Your task to perform on an android device: Go to calendar. Show me events next week Image 0: 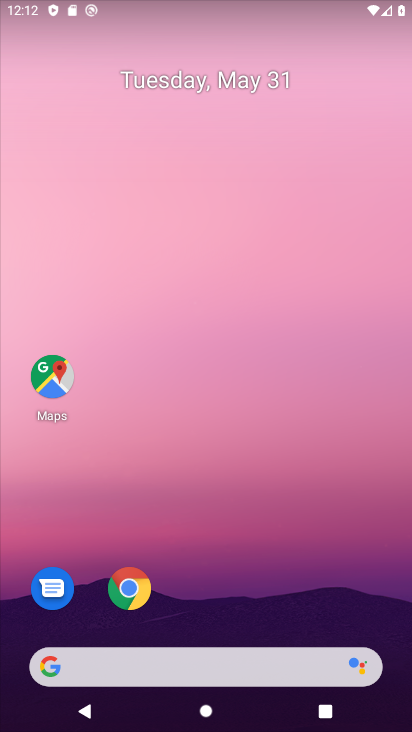
Step 0: click (106, 43)
Your task to perform on an android device: Go to calendar. Show me events next week Image 1: 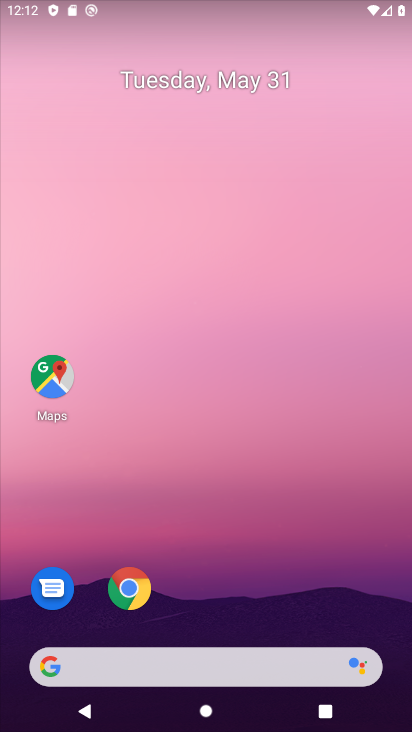
Step 1: drag from (149, 725) to (149, 61)
Your task to perform on an android device: Go to calendar. Show me events next week Image 2: 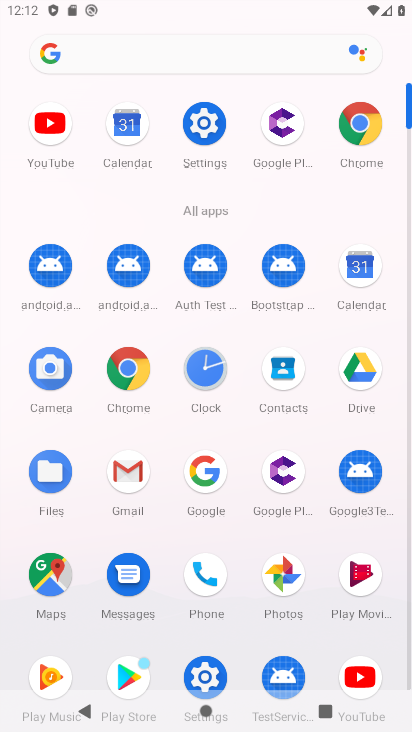
Step 2: click (132, 124)
Your task to perform on an android device: Go to calendar. Show me events next week Image 3: 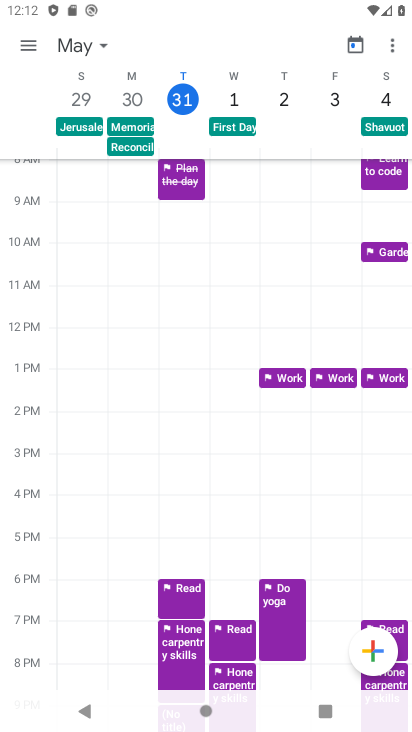
Step 3: task complete